Your task to perform on an android device: Open the calendar and show me this week's events? Image 0: 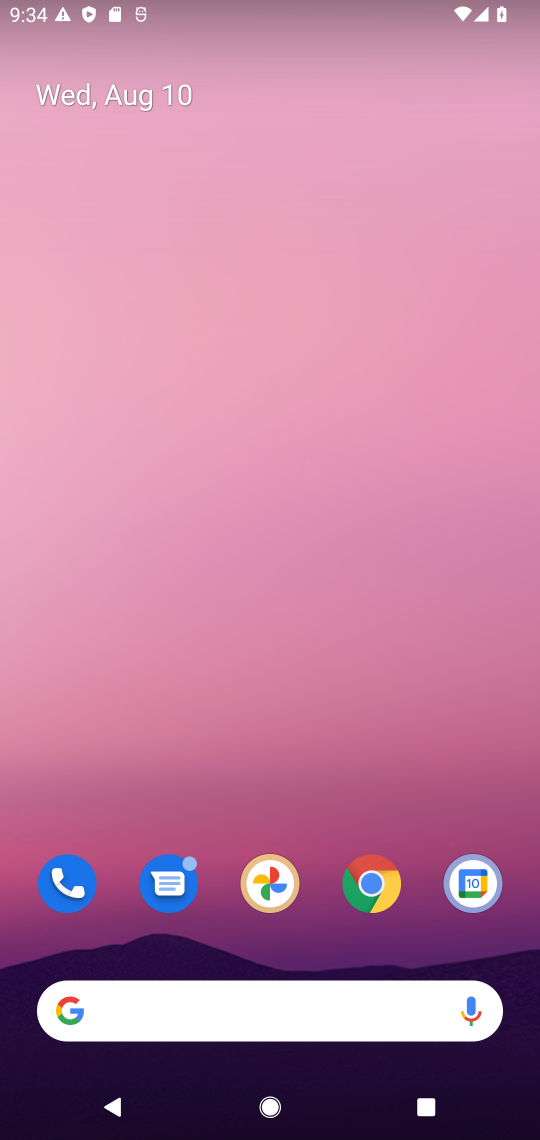
Step 0: press home button
Your task to perform on an android device: Open the calendar and show me this week's events? Image 1: 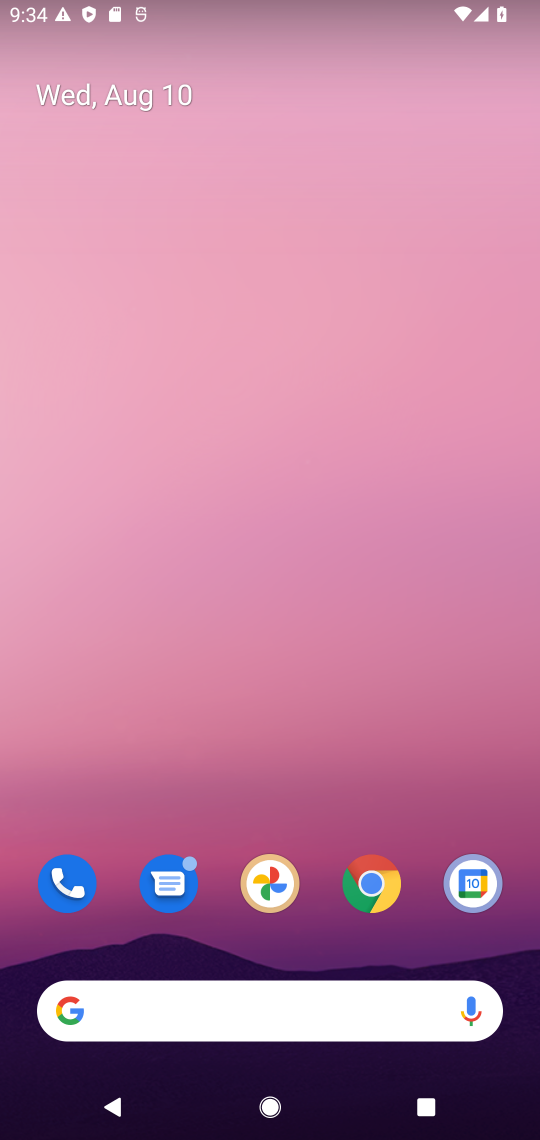
Step 1: drag from (432, 951) to (412, 361)
Your task to perform on an android device: Open the calendar and show me this week's events? Image 2: 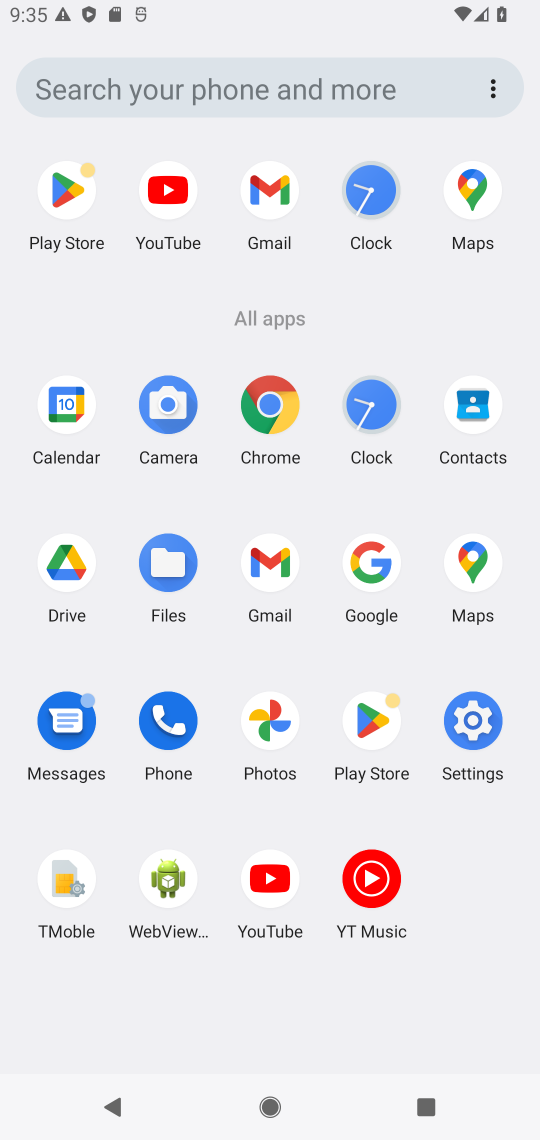
Step 2: click (36, 420)
Your task to perform on an android device: Open the calendar and show me this week's events? Image 3: 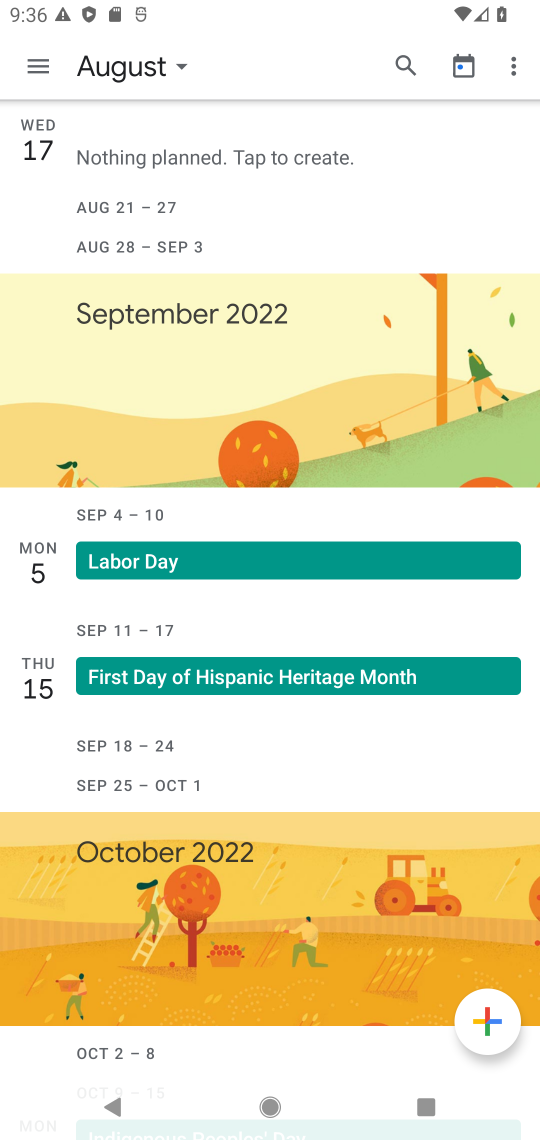
Step 3: click (172, 63)
Your task to perform on an android device: Open the calendar and show me this week's events? Image 4: 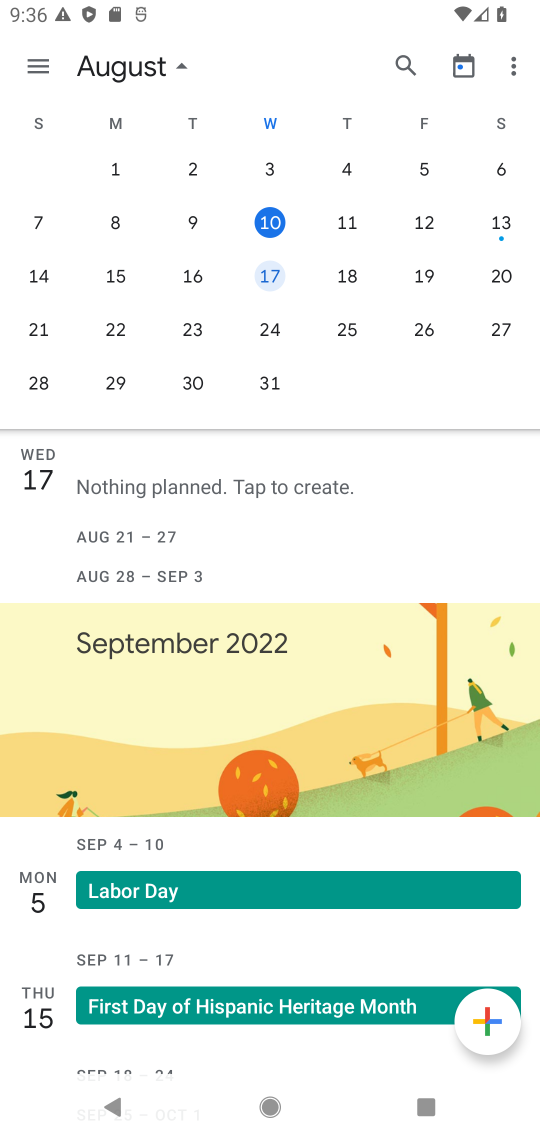
Step 4: click (266, 294)
Your task to perform on an android device: Open the calendar and show me this week's events? Image 5: 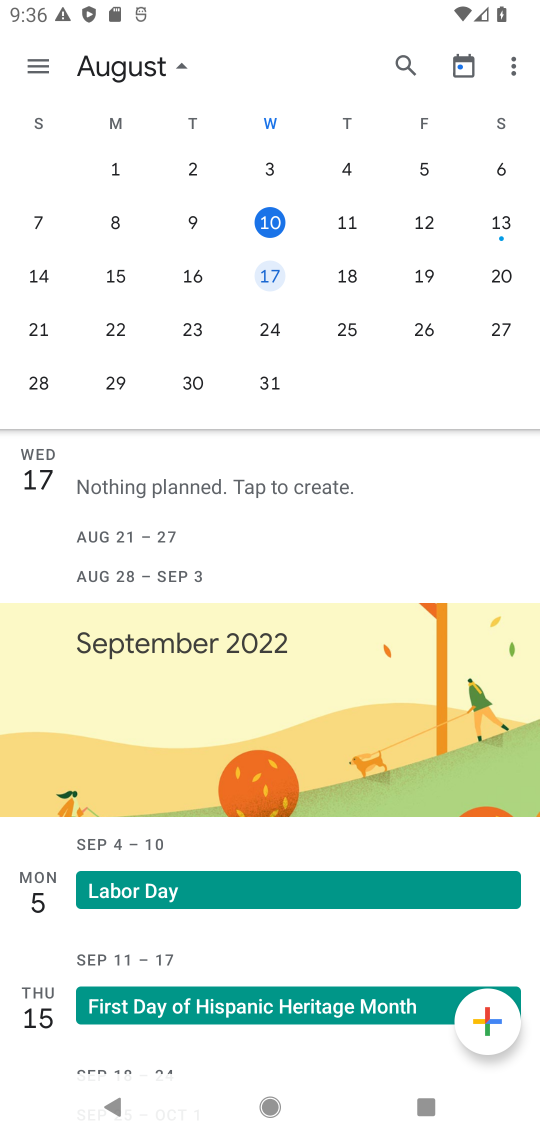
Step 5: task complete